Your task to perform on an android device: Open Google Chrome and click the shortcut for Amazon.com Image 0: 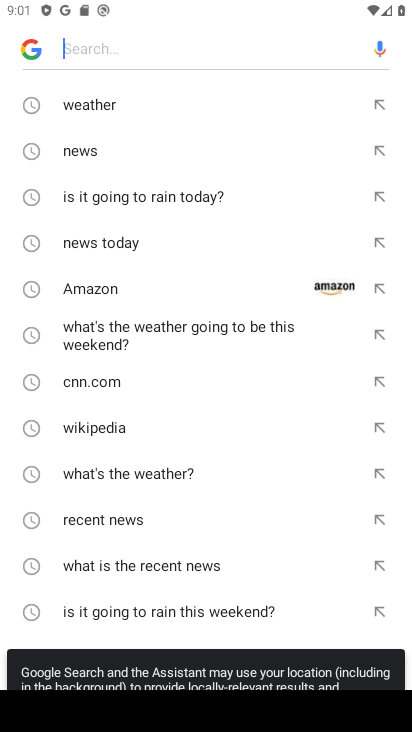
Step 0: press home button
Your task to perform on an android device: Open Google Chrome and click the shortcut for Amazon.com Image 1: 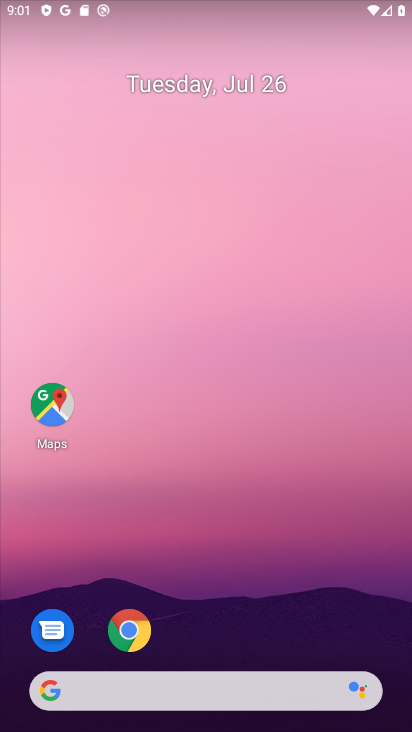
Step 1: click (124, 642)
Your task to perform on an android device: Open Google Chrome and click the shortcut for Amazon.com Image 2: 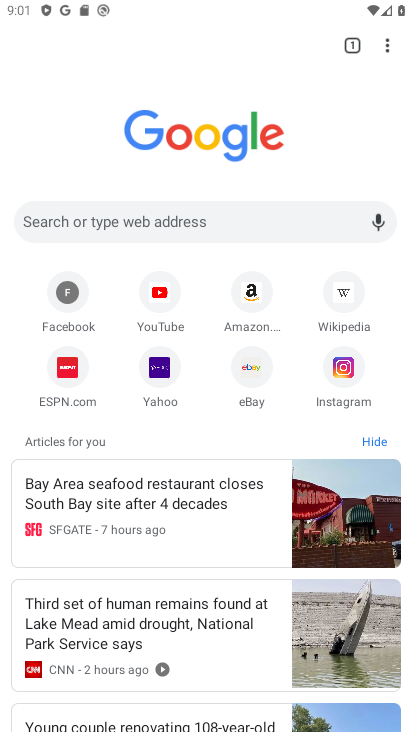
Step 2: click (241, 283)
Your task to perform on an android device: Open Google Chrome and click the shortcut for Amazon.com Image 3: 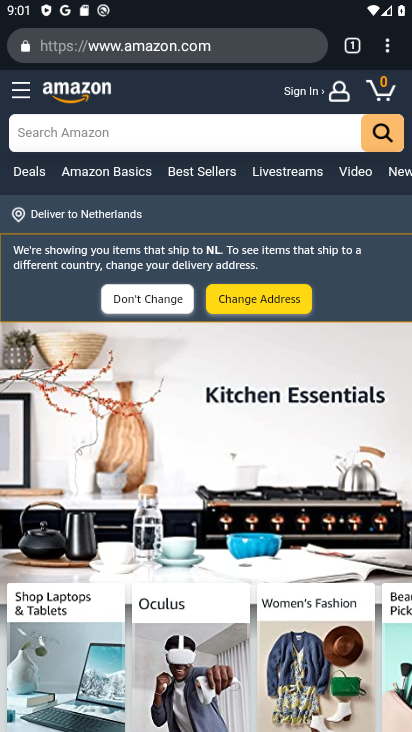
Step 3: task complete